Your task to perform on an android device: Show the shopping cart on walmart. Image 0: 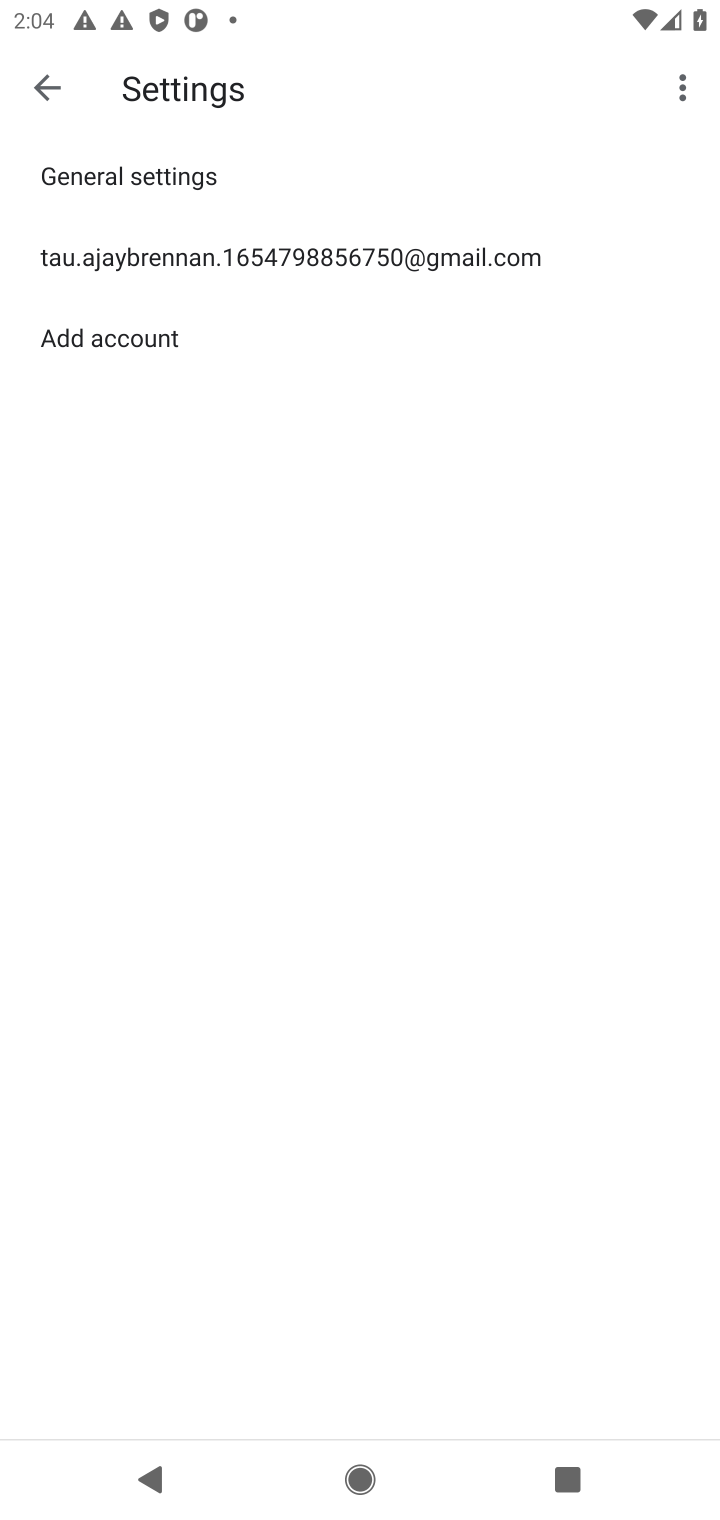
Step 0: press home button
Your task to perform on an android device: Show the shopping cart on walmart. Image 1: 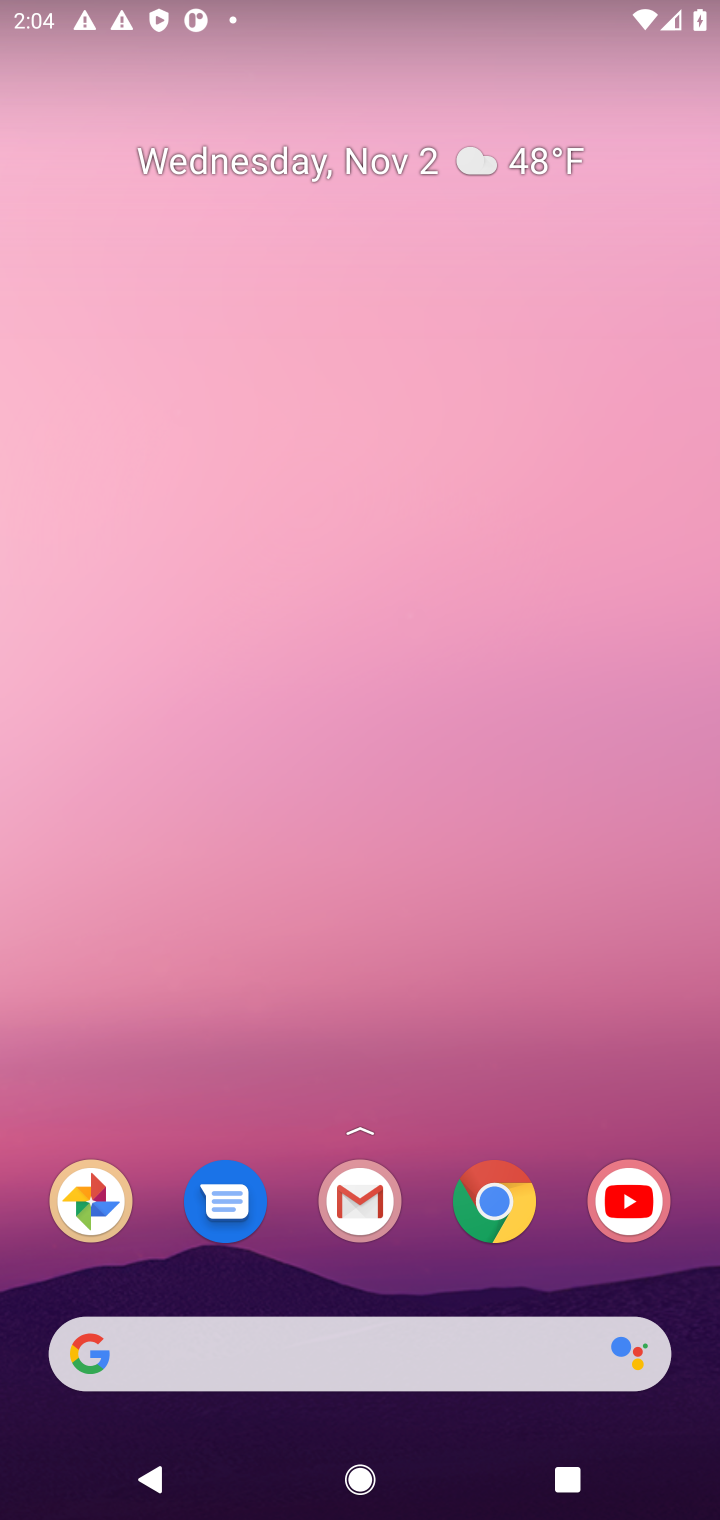
Step 1: click (476, 1205)
Your task to perform on an android device: Show the shopping cart on walmart. Image 2: 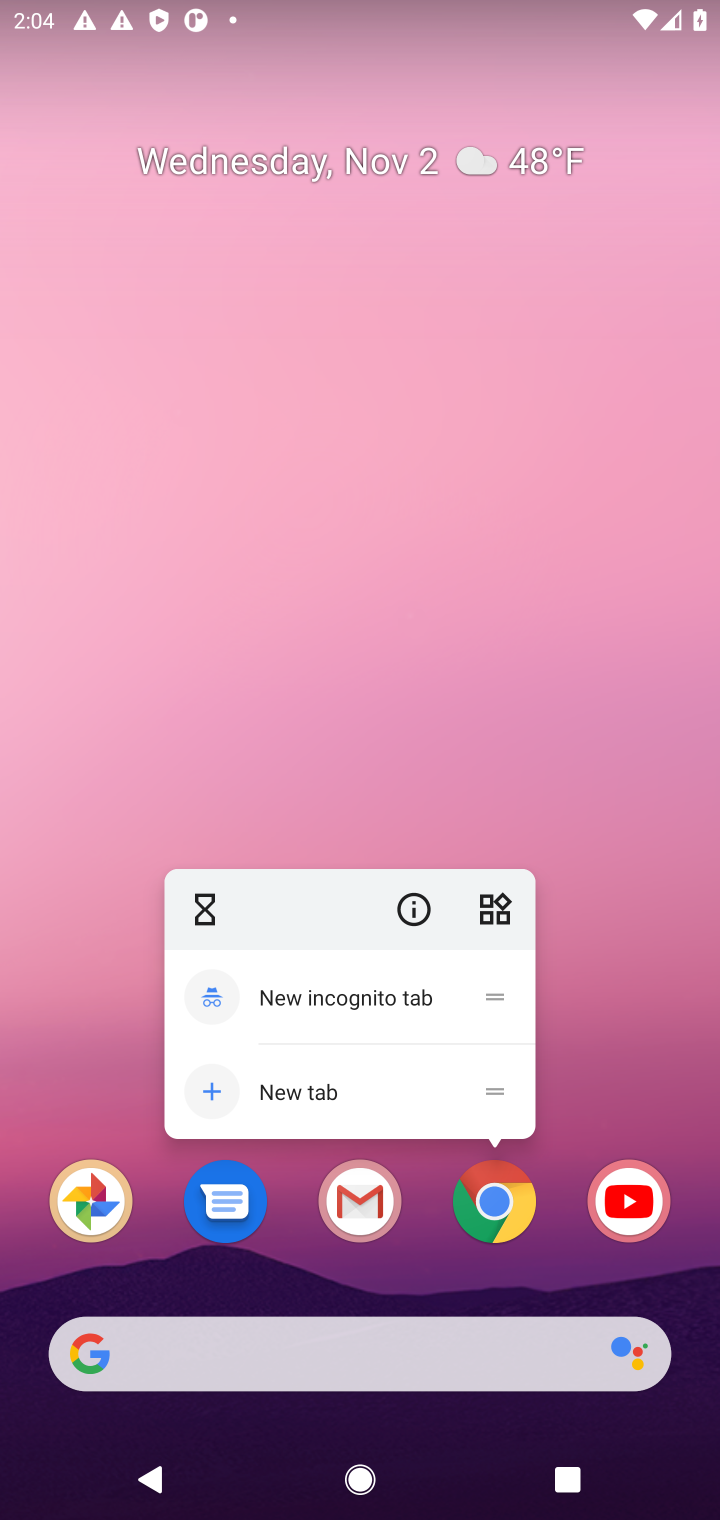
Step 2: click (476, 1205)
Your task to perform on an android device: Show the shopping cart on walmart. Image 3: 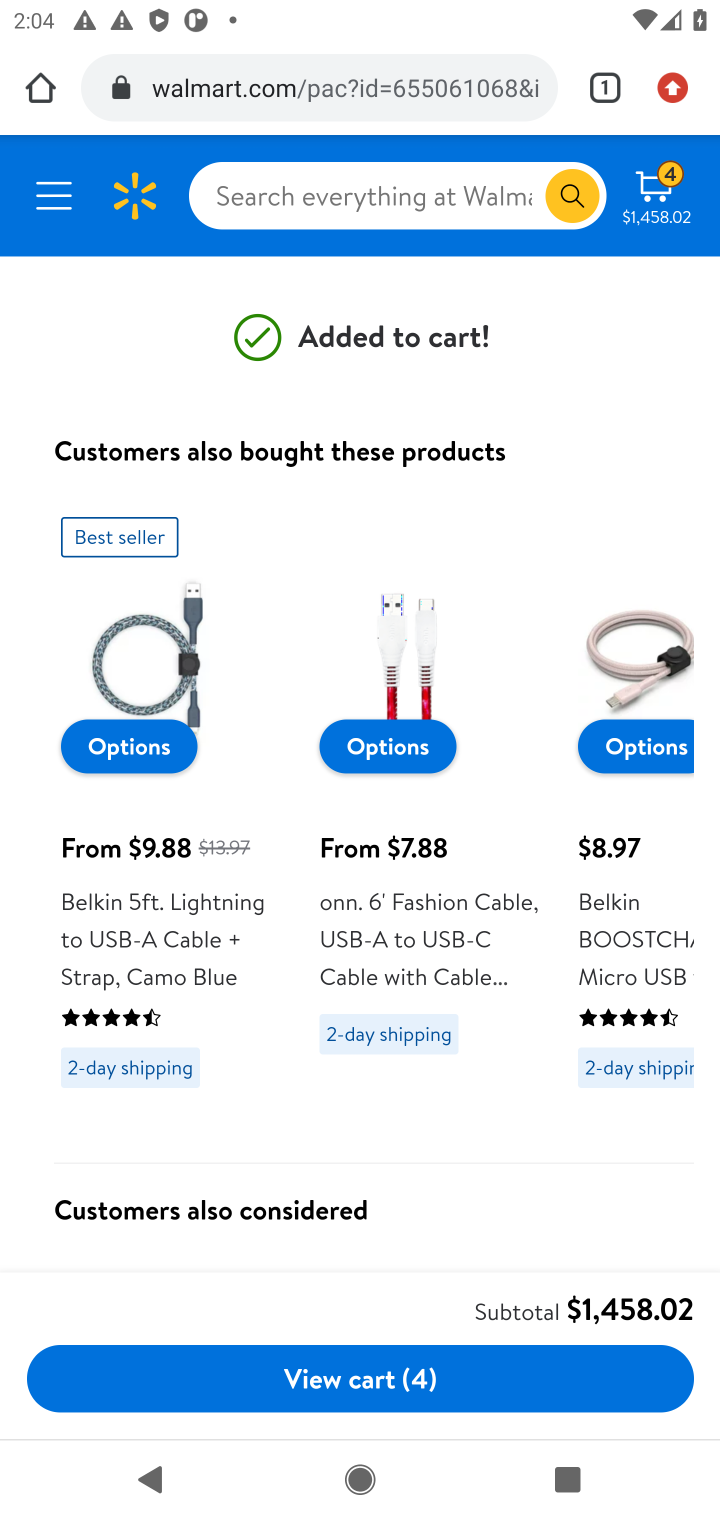
Step 3: click (653, 190)
Your task to perform on an android device: Show the shopping cart on walmart. Image 4: 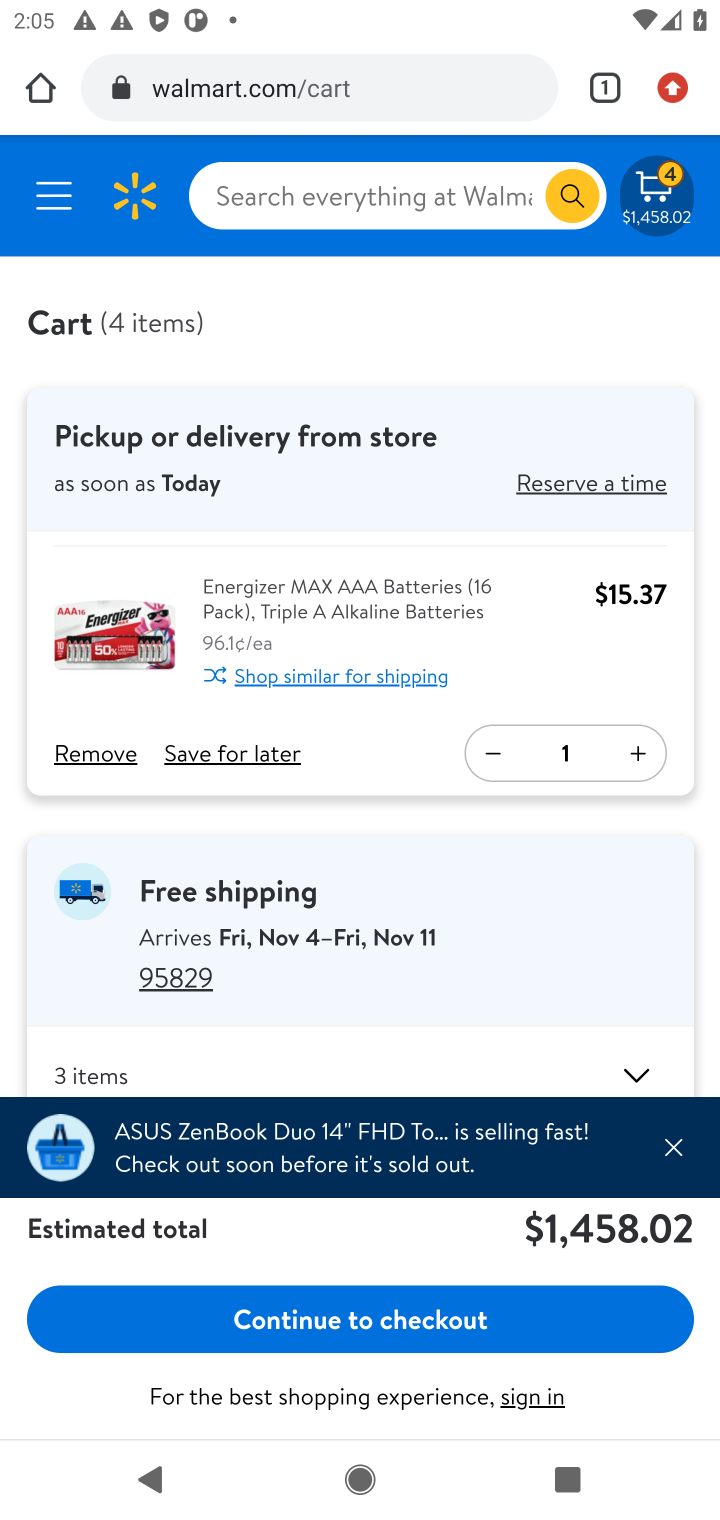
Step 4: task complete